Your task to perform on an android device: turn off notifications in google photos Image 0: 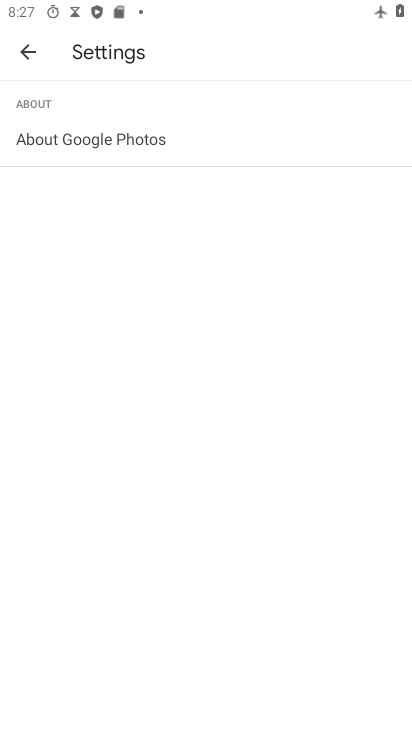
Step 0: press home button
Your task to perform on an android device: turn off notifications in google photos Image 1: 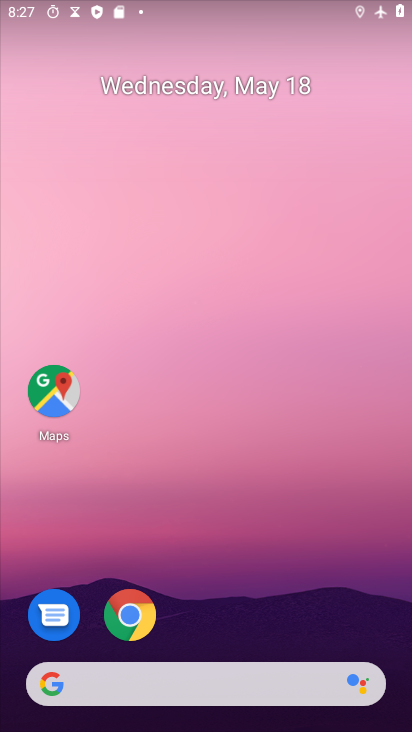
Step 1: drag from (270, 601) to (278, 204)
Your task to perform on an android device: turn off notifications in google photos Image 2: 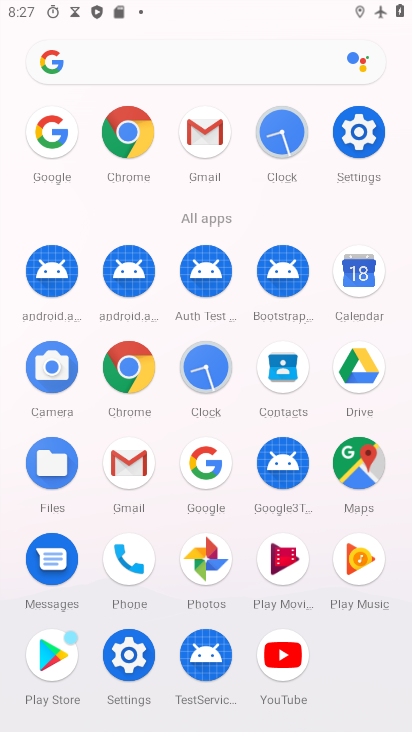
Step 2: click (207, 555)
Your task to perform on an android device: turn off notifications in google photos Image 3: 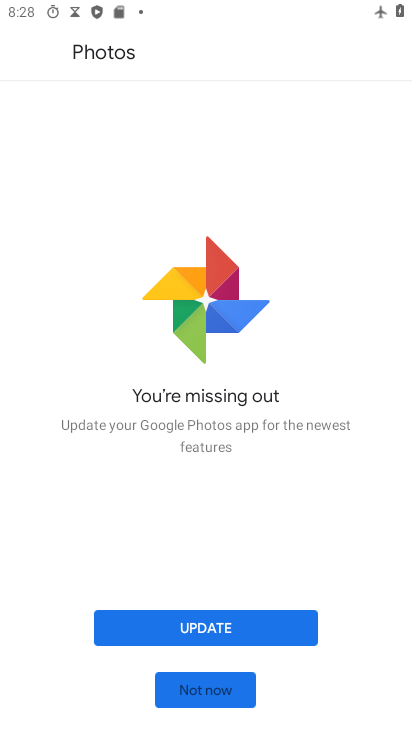
Step 3: click (216, 629)
Your task to perform on an android device: turn off notifications in google photos Image 4: 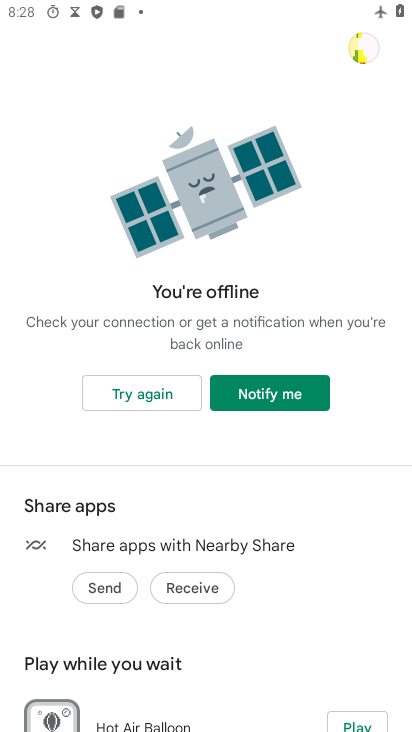
Step 4: click (118, 400)
Your task to perform on an android device: turn off notifications in google photos Image 5: 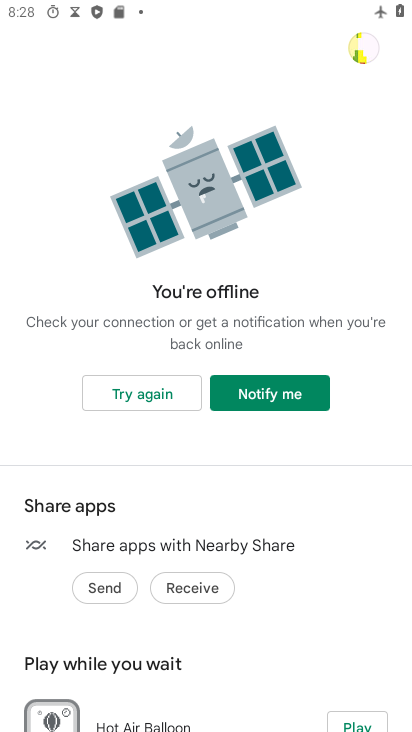
Step 5: click (118, 400)
Your task to perform on an android device: turn off notifications in google photos Image 6: 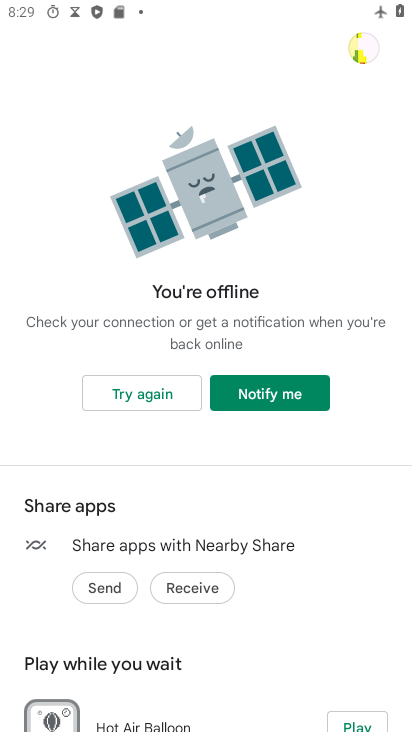
Step 6: task complete